Your task to perform on an android device: Go to privacy settings Image 0: 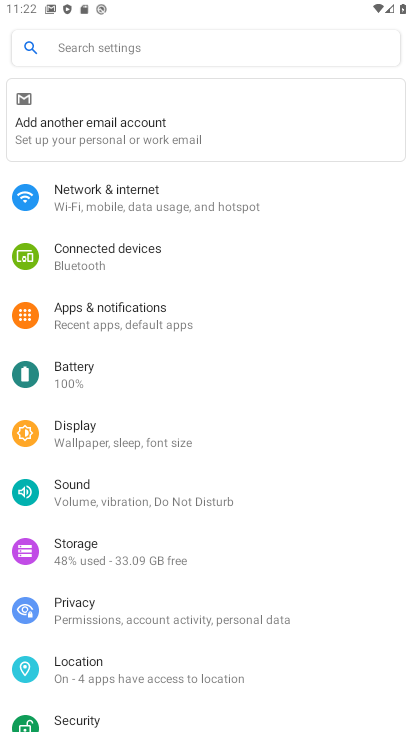
Step 0: click (123, 615)
Your task to perform on an android device: Go to privacy settings Image 1: 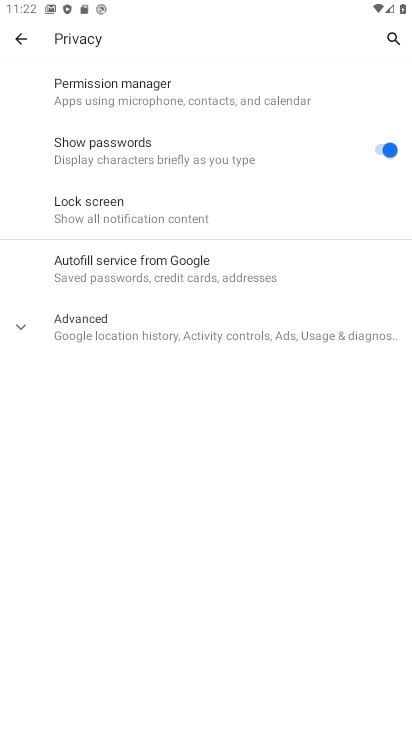
Step 1: task complete